Your task to perform on an android device: empty trash in the gmail app Image 0: 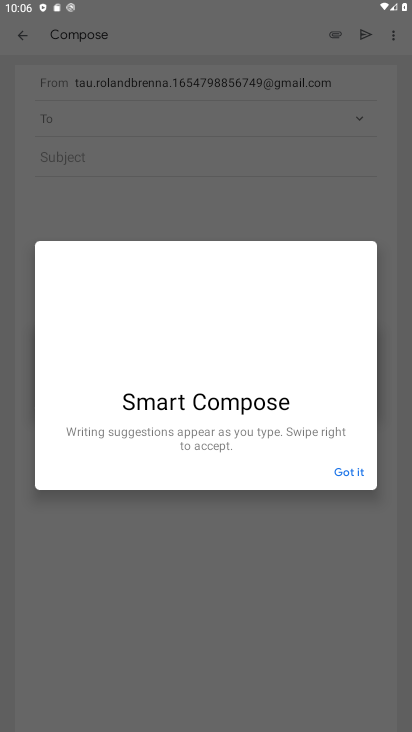
Step 0: press home button
Your task to perform on an android device: empty trash in the gmail app Image 1: 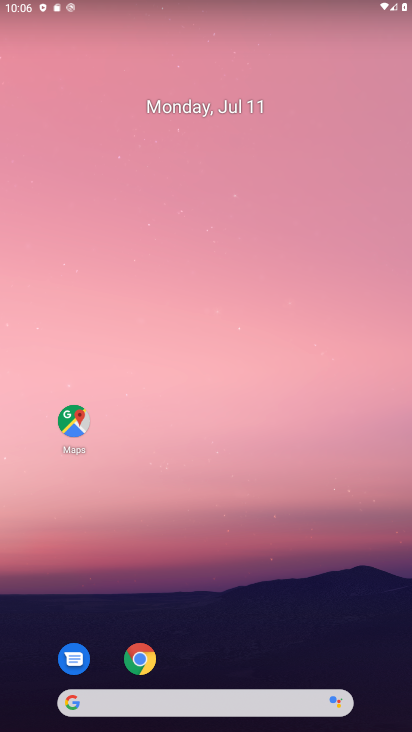
Step 1: drag from (197, 662) to (315, 143)
Your task to perform on an android device: empty trash in the gmail app Image 2: 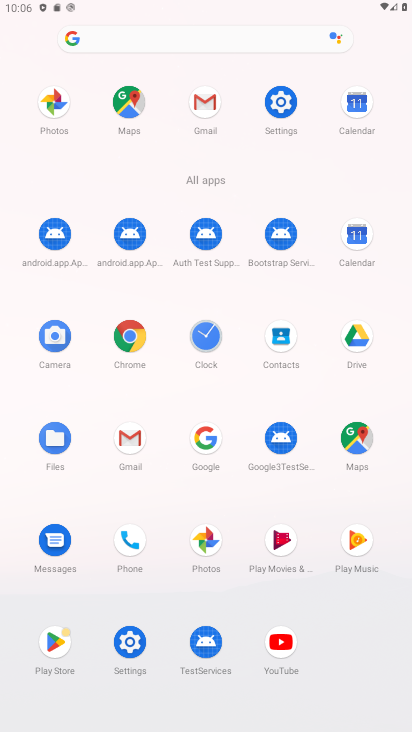
Step 2: click (131, 447)
Your task to perform on an android device: empty trash in the gmail app Image 3: 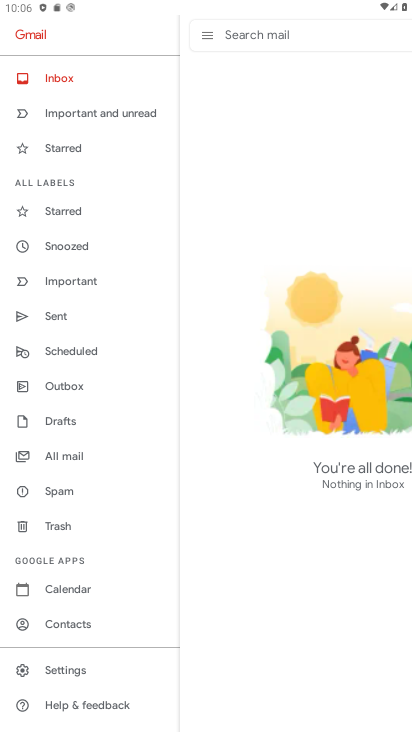
Step 3: click (81, 529)
Your task to perform on an android device: empty trash in the gmail app Image 4: 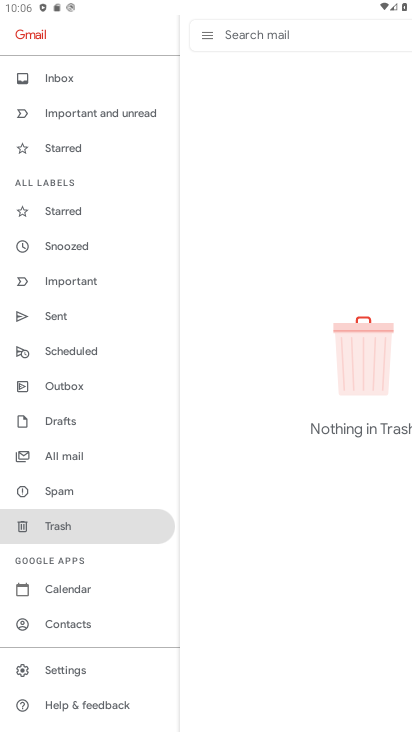
Step 4: task complete